Your task to perform on an android device: find which apps use the phone's location Image 0: 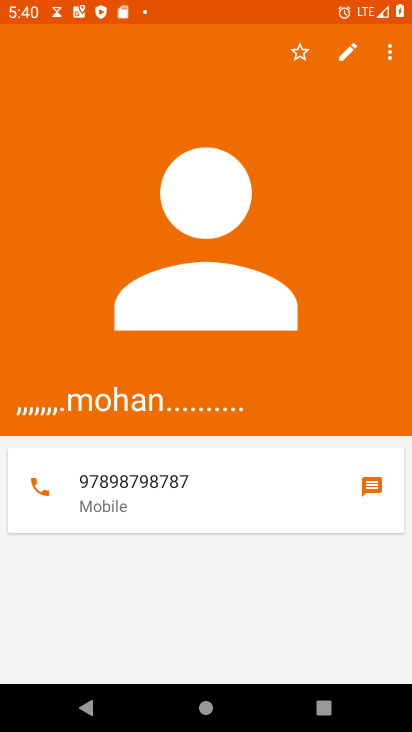
Step 0: press home button
Your task to perform on an android device: find which apps use the phone's location Image 1: 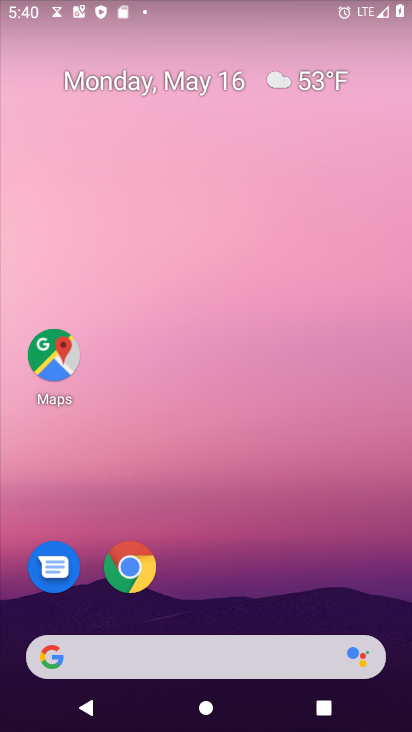
Step 1: drag from (280, 584) to (220, 15)
Your task to perform on an android device: find which apps use the phone's location Image 2: 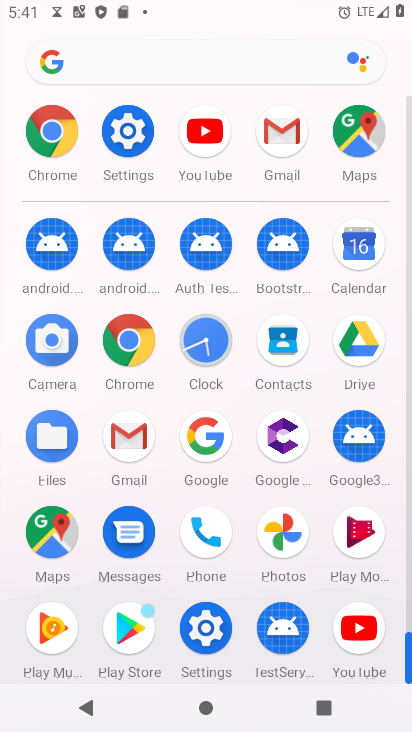
Step 2: click (130, 119)
Your task to perform on an android device: find which apps use the phone's location Image 3: 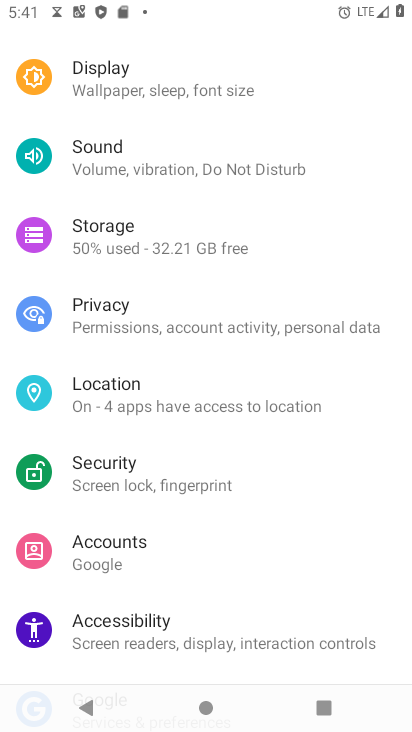
Step 3: click (164, 390)
Your task to perform on an android device: find which apps use the phone's location Image 4: 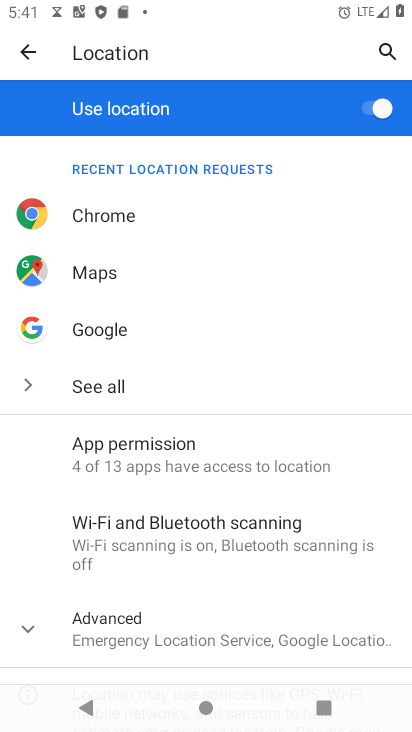
Step 4: drag from (249, 626) to (237, 355)
Your task to perform on an android device: find which apps use the phone's location Image 5: 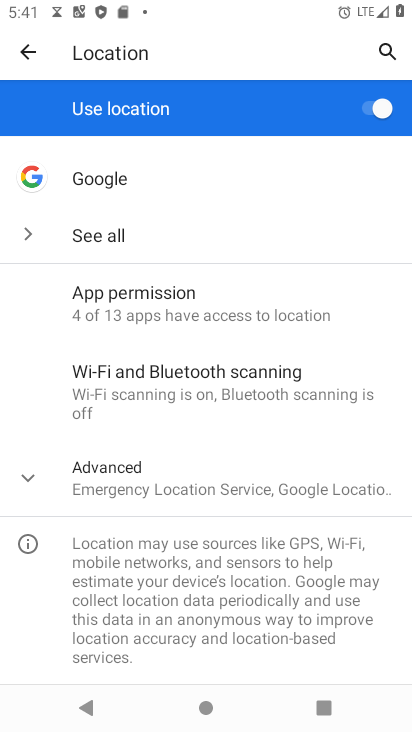
Step 5: click (151, 306)
Your task to perform on an android device: find which apps use the phone's location Image 6: 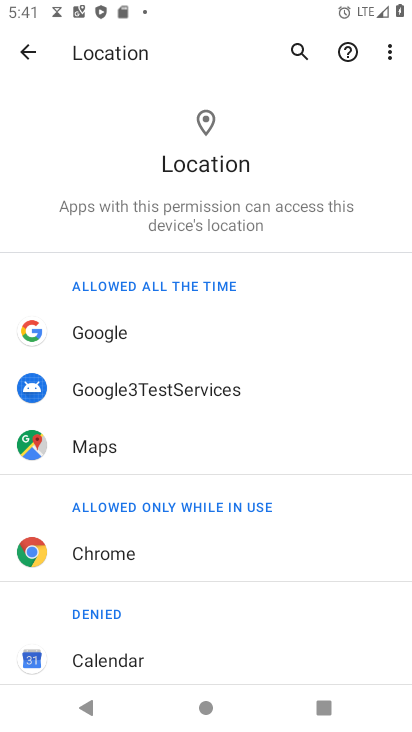
Step 6: task complete